Your task to perform on an android device: Open the stopwatch Image 0: 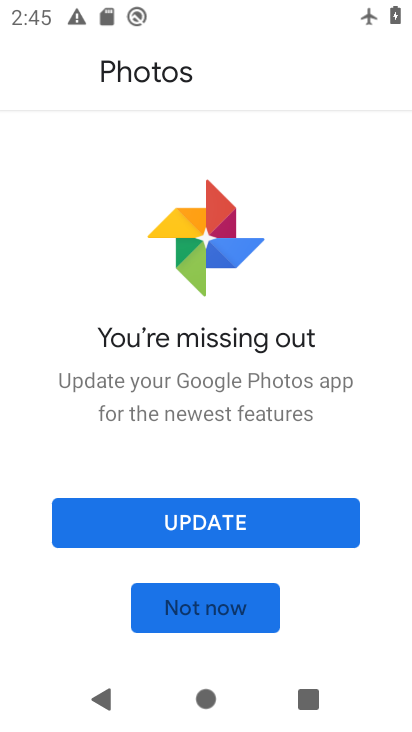
Step 0: press home button
Your task to perform on an android device: Open the stopwatch Image 1: 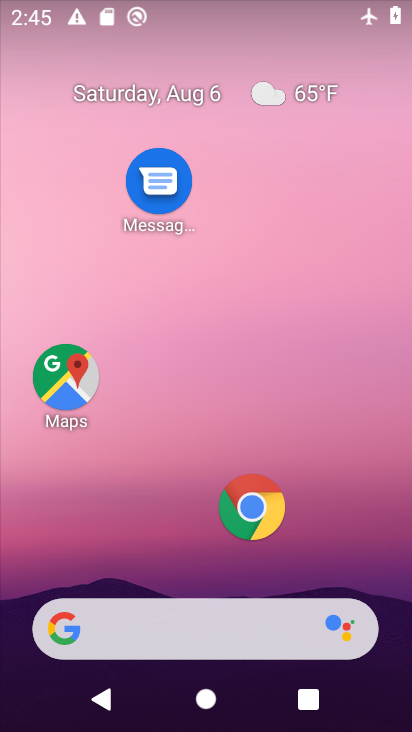
Step 1: drag from (142, 549) to (162, 339)
Your task to perform on an android device: Open the stopwatch Image 2: 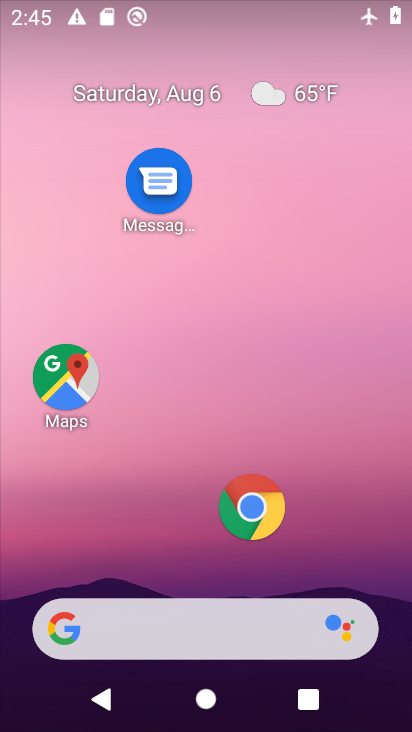
Step 2: drag from (193, 565) to (270, 2)
Your task to perform on an android device: Open the stopwatch Image 3: 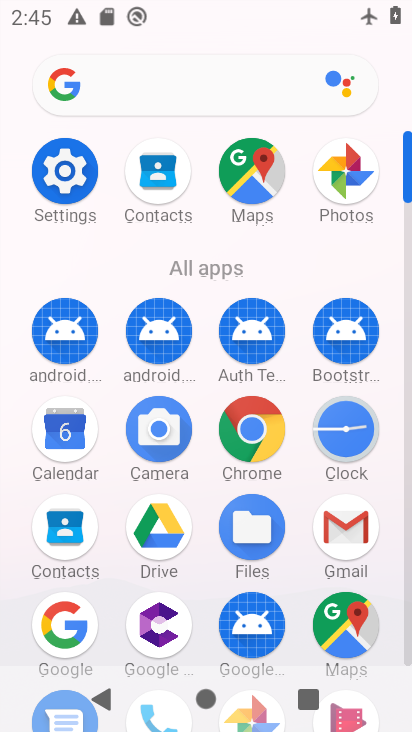
Step 3: drag from (213, 608) to (215, 431)
Your task to perform on an android device: Open the stopwatch Image 4: 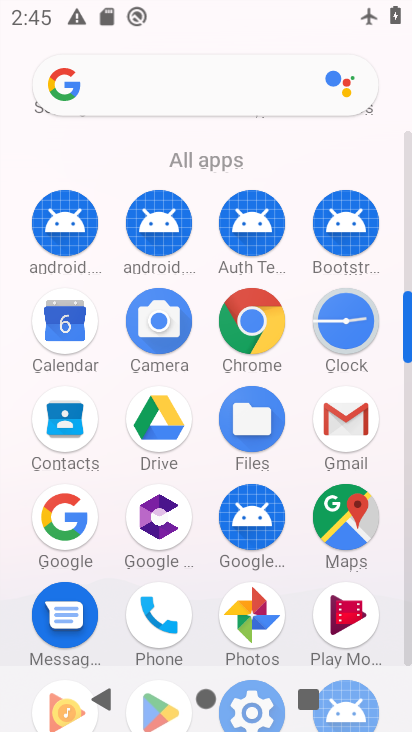
Step 4: click (338, 320)
Your task to perform on an android device: Open the stopwatch Image 5: 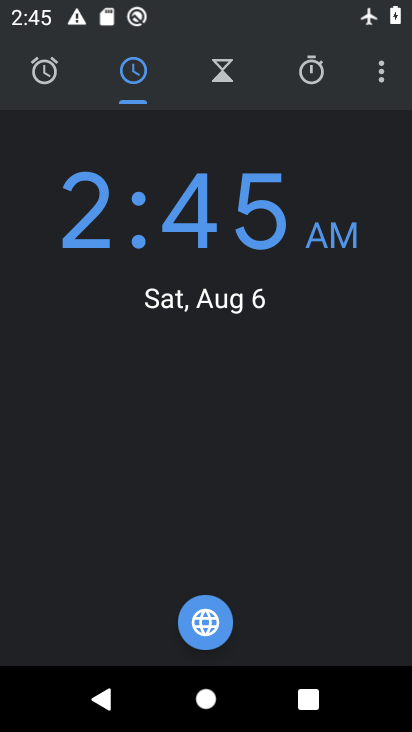
Step 5: click (305, 84)
Your task to perform on an android device: Open the stopwatch Image 6: 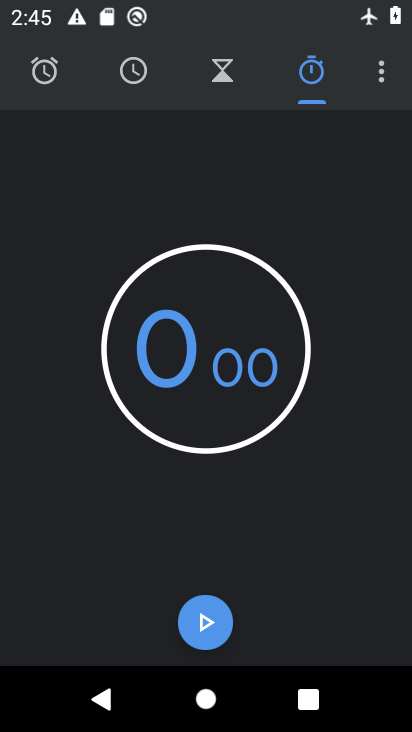
Step 6: click (205, 629)
Your task to perform on an android device: Open the stopwatch Image 7: 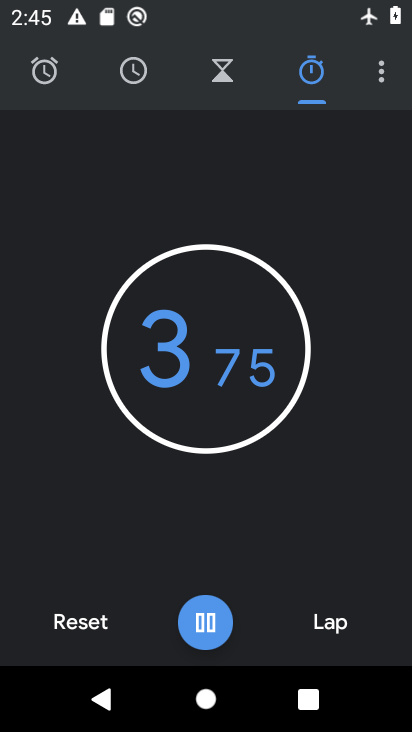
Step 7: task complete